Your task to perform on an android device: Go to Yahoo.com Image 0: 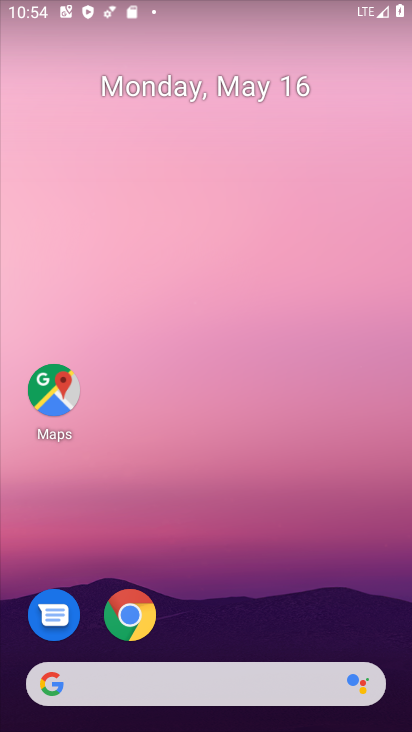
Step 0: drag from (247, 626) to (269, 243)
Your task to perform on an android device: Go to Yahoo.com Image 1: 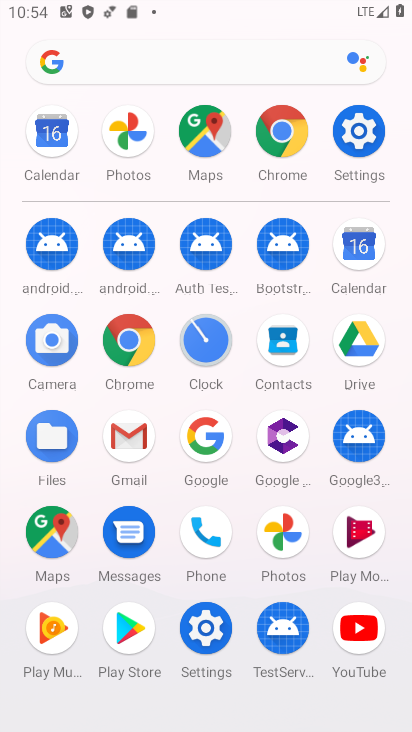
Step 1: click (283, 165)
Your task to perform on an android device: Go to Yahoo.com Image 2: 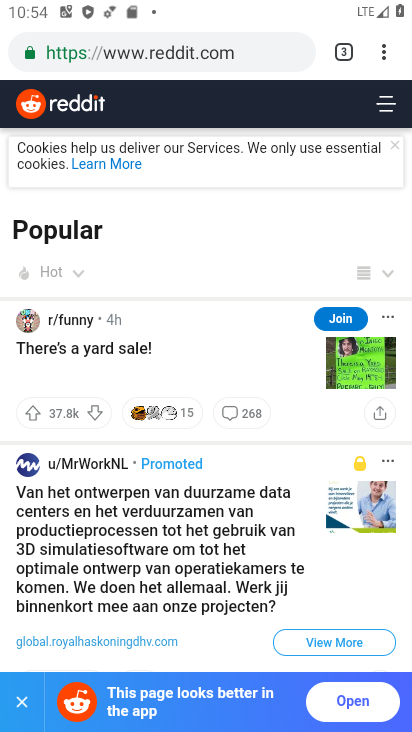
Step 2: click (239, 56)
Your task to perform on an android device: Go to Yahoo.com Image 3: 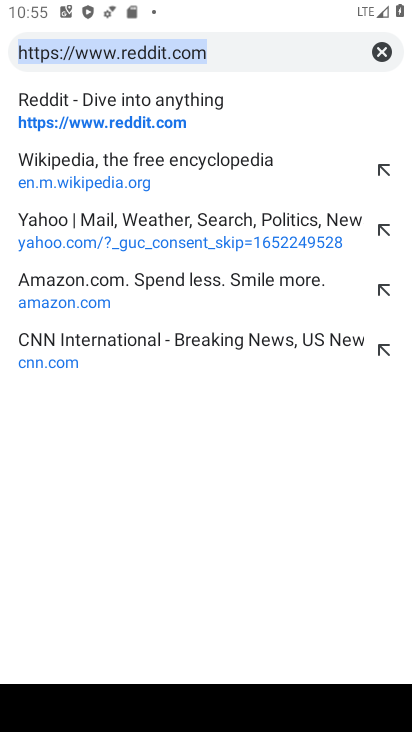
Step 3: click (176, 238)
Your task to perform on an android device: Go to Yahoo.com Image 4: 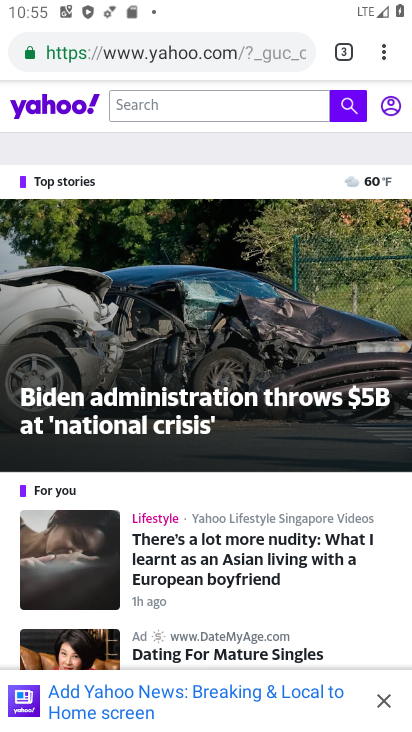
Step 4: task complete